Your task to perform on an android device: turn on wifi Image 0: 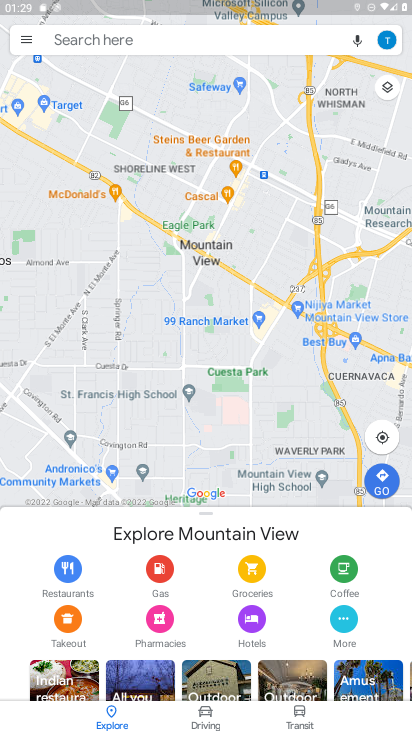
Step 0: press home button
Your task to perform on an android device: turn on wifi Image 1: 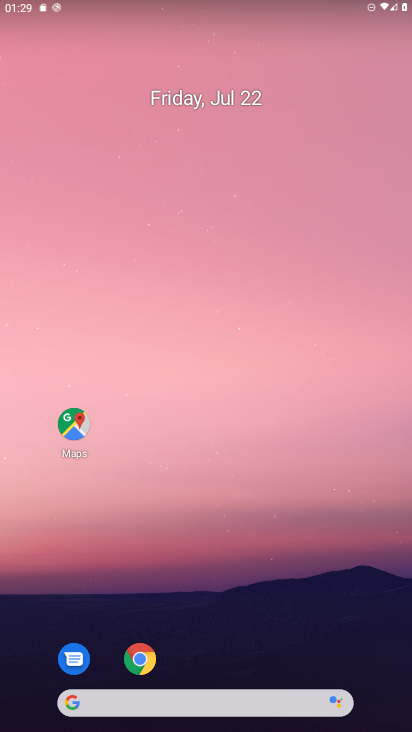
Step 1: drag from (214, 716) to (213, 161)
Your task to perform on an android device: turn on wifi Image 2: 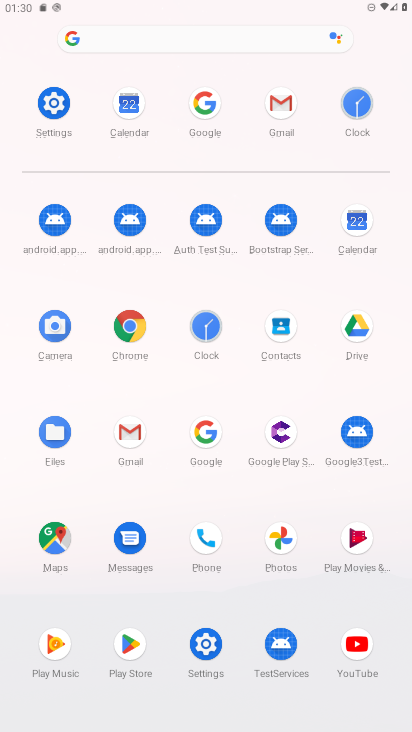
Step 2: click (52, 102)
Your task to perform on an android device: turn on wifi Image 3: 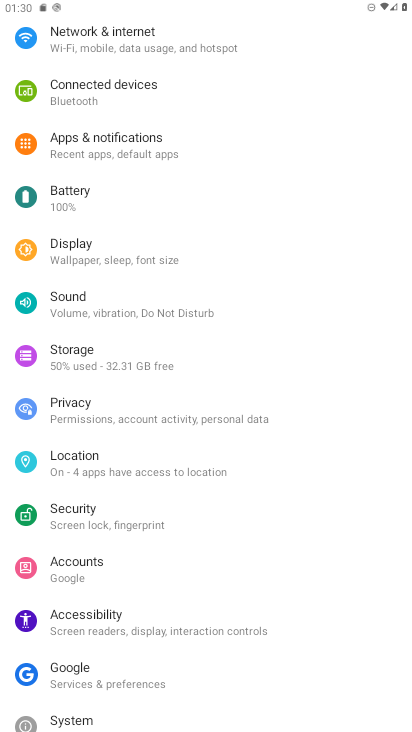
Step 3: click (120, 45)
Your task to perform on an android device: turn on wifi Image 4: 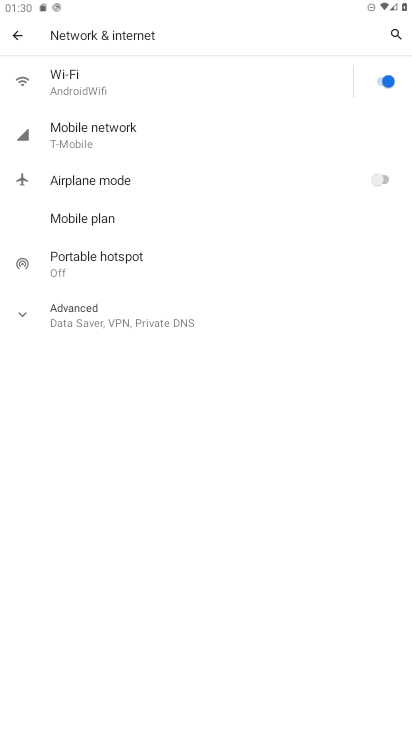
Step 4: task complete